Your task to perform on an android device: toggle wifi Image 0: 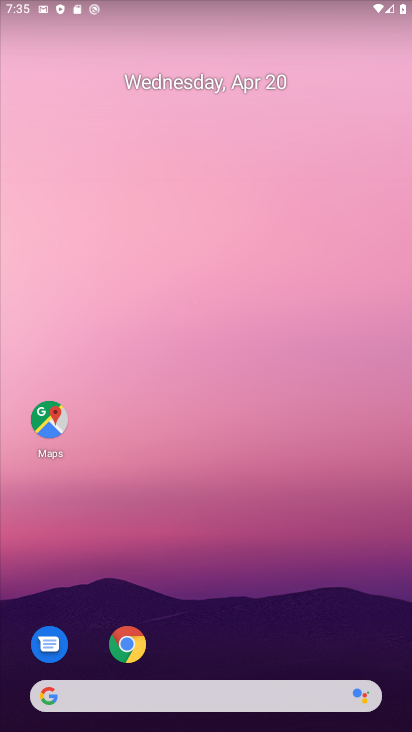
Step 0: drag from (313, 622) to (327, 48)
Your task to perform on an android device: toggle wifi Image 1: 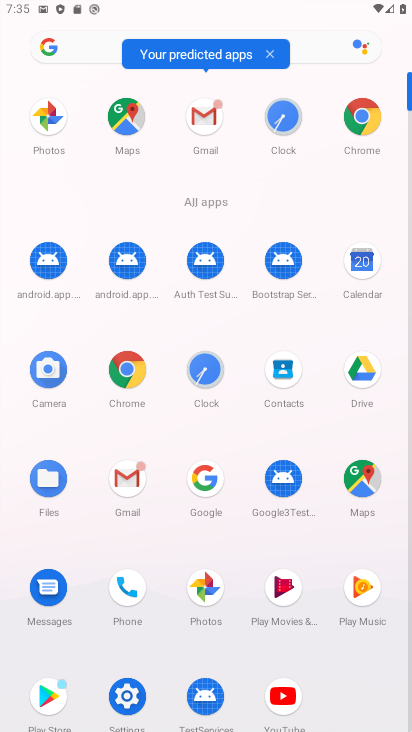
Step 1: click (126, 703)
Your task to perform on an android device: toggle wifi Image 2: 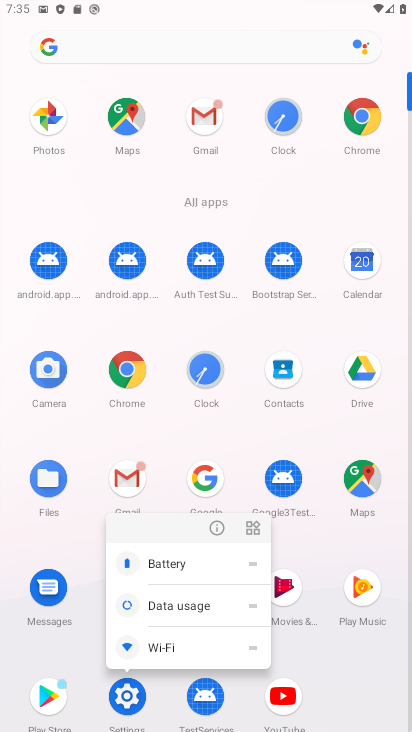
Step 2: click (125, 700)
Your task to perform on an android device: toggle wifi Image 3: 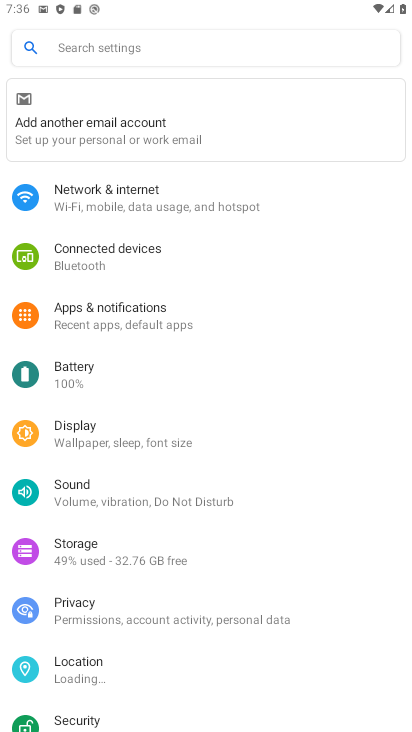
Step 3: click (120, 215)
Your task to perform on an android device: toggle wifi Image 4: 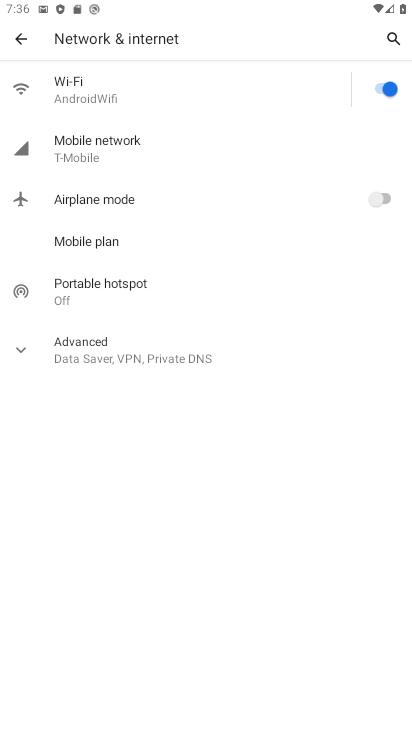
Step 4: click (387, 88)
Your task to perform on an android device: toggle wifi Image 5: 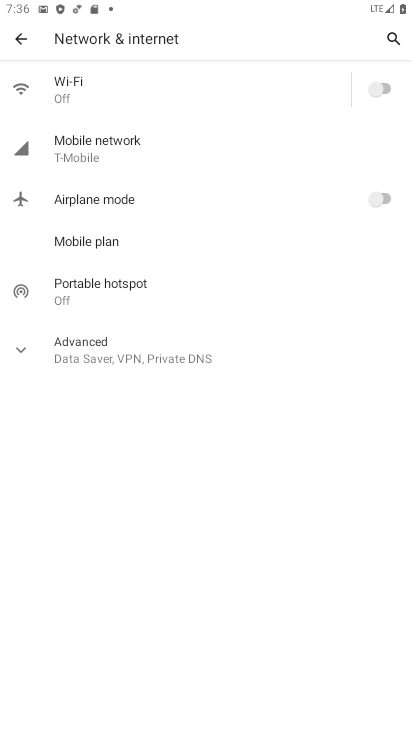
Step 5: task complete